Your task to perform on an android device: What's the weather going to be this weekend? Image 0: 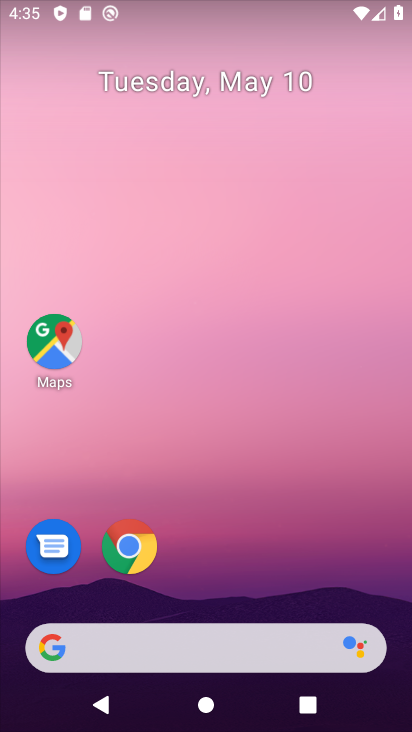
Step 0: click (181, 641)
Your task to perform on an android device: What's the weather going to be this weekend? Image 1: 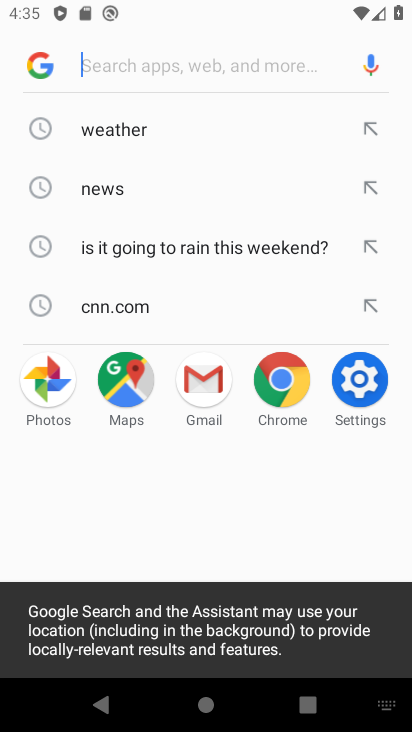
Step 1: click (162, 142)
Your task to perform on an android device: What's the weather going to be this weekend? Image 2: 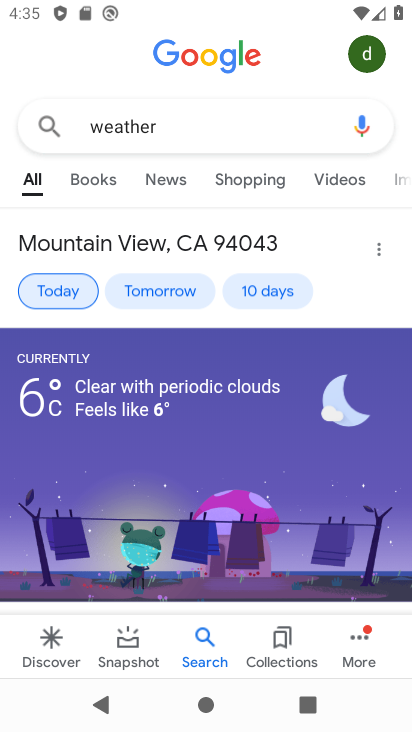
Step 2: drag from (144, 550) to (192, 360)
Your task to perform on an android device: What's the weather going to be this weekend? Image 3: 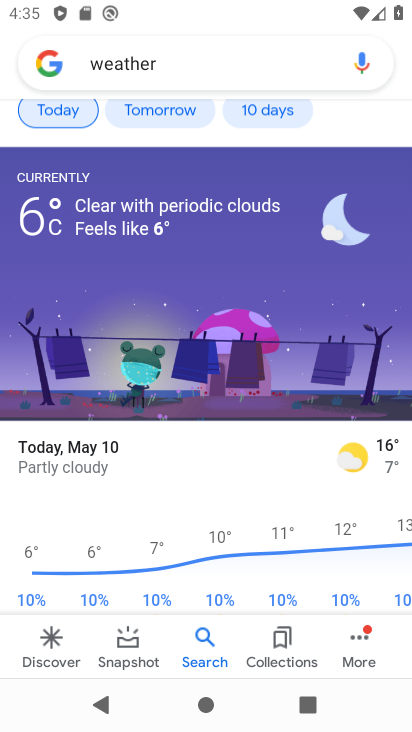
Step 3: drag from (197, 507) to (320, 35)
Your task to perform on an android device: What's the weather going to be this weekend? Image 4: 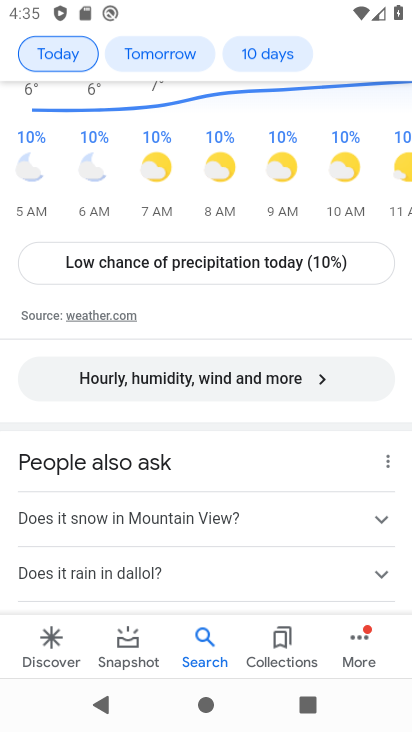
Step 4: drag from (172, 579) to (265, 99)
Your task to perform on an android device: What's the weather going to be this weekend? Image 5: 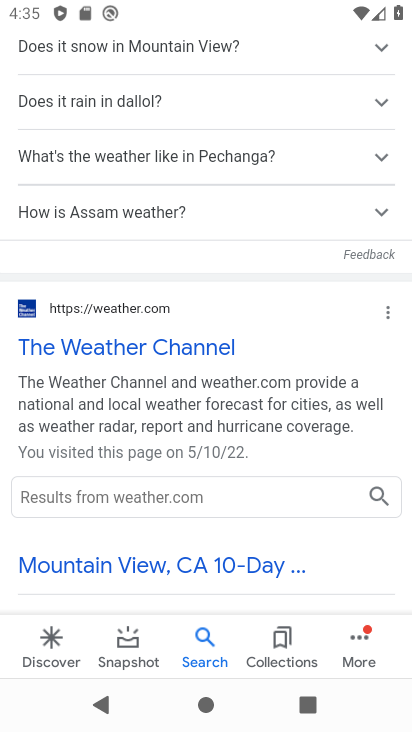
Step 5: click (163, 351)
Your task to perform on an android device: What's the weather going to be this weekend? Image 6: 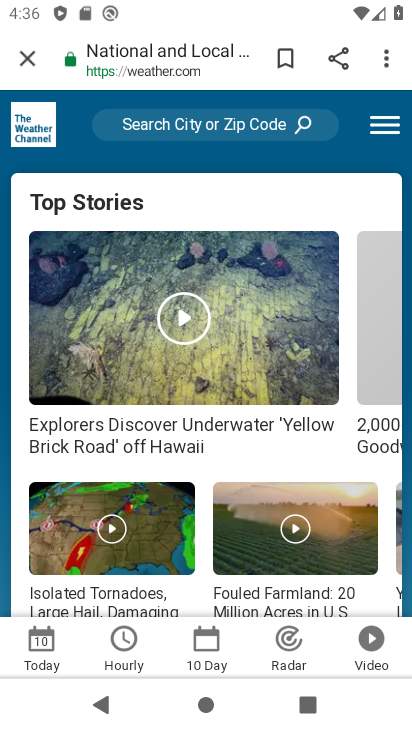
Step 6: click (205, 640)
Your task to perform on an android device: What's the weather going to be this weekend? Image 7: 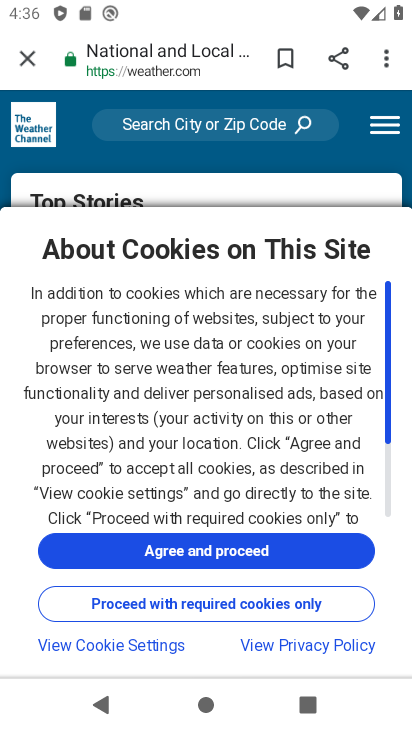
Step 7: click (239, 560)
Your task to perform on an android device: What's the weather going to be this weekend? Image 8: 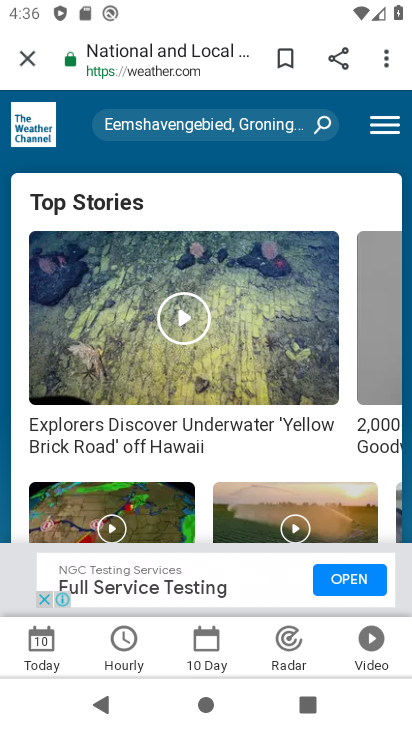
Step 8: click (227, 658)
Your task to perform on an android device: What's the weather going to be this weekend? Image 9: 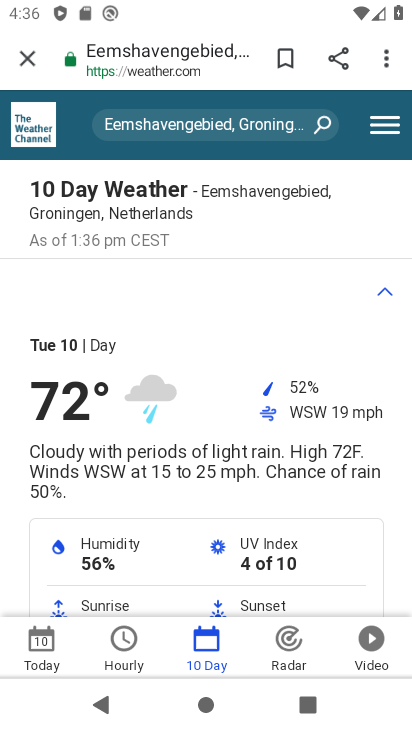
Step 9: task complete